Your task to perform on an android device: find which apps use the phone's location Image 0: 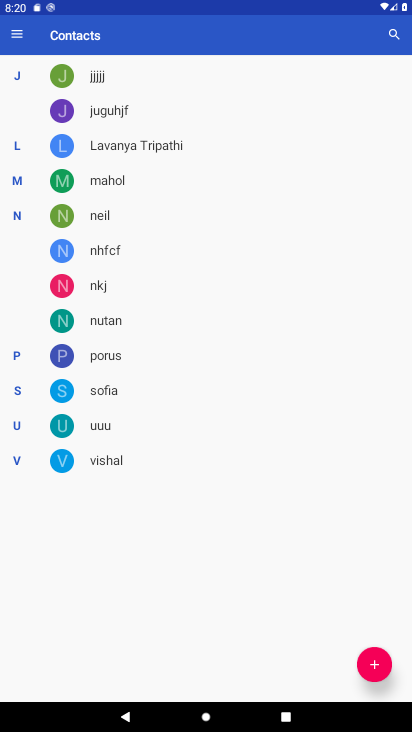
Step 0: press home button
Your task to perform on an android device: find which apps use the phone's location Image 1: 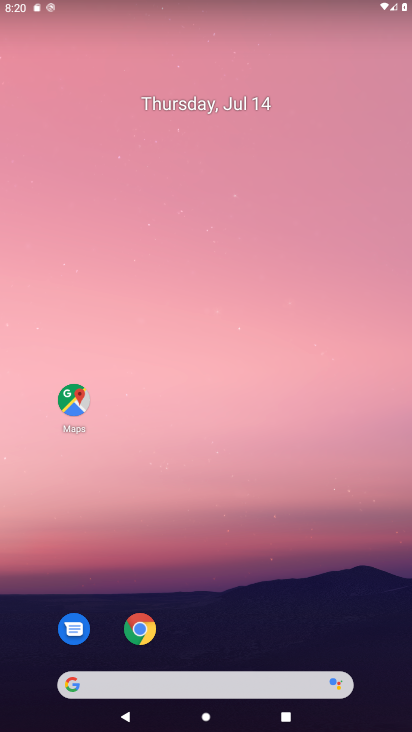
Step 1: drag from (201, 505) to (177, 0)
Your task to perform on an android device: find which apps use the phone's location Image 2: 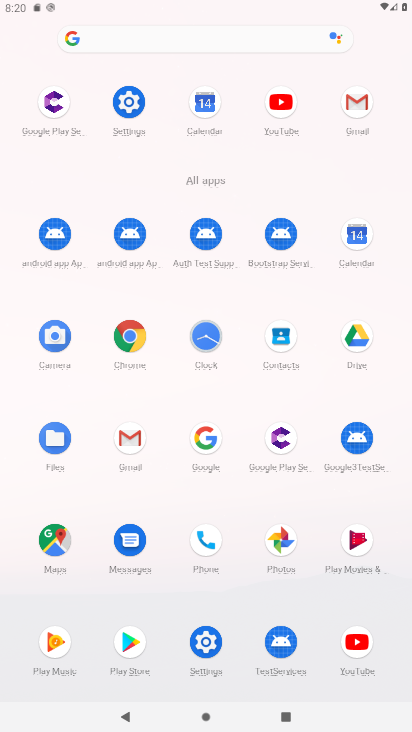
Step 2: drag from (217, 571) to (225, 408)
Your task to perform on an android device: find which apps use the phone's location Image 3: 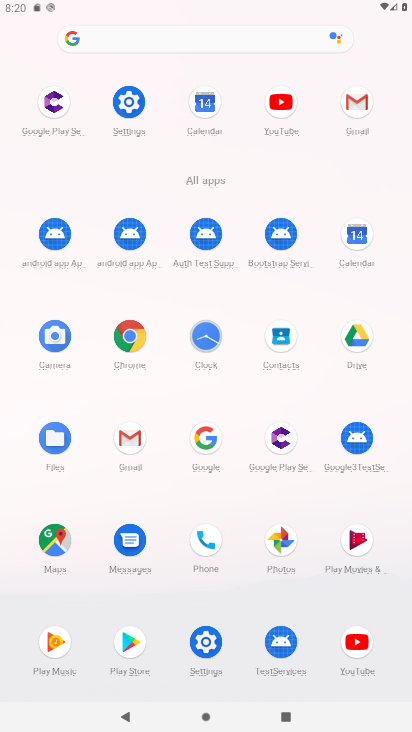
Step 3: click (202, 649)
Your task to perform on an android device: find which apps use the phone's location Image 4: 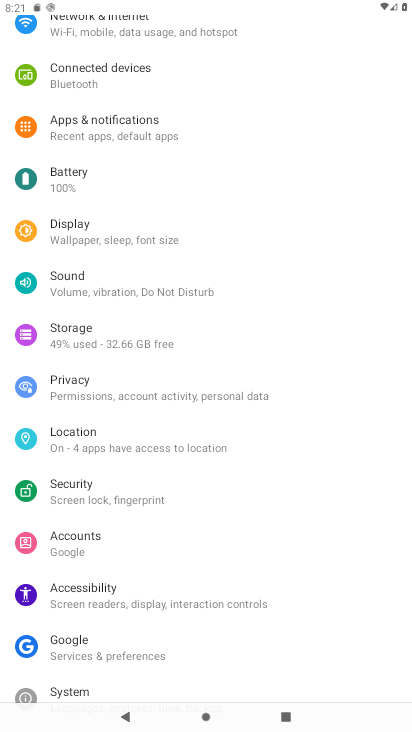
Step 4: click (122, 451)
Your task to perform on an android device: find which apps use the phone's location Image 5: 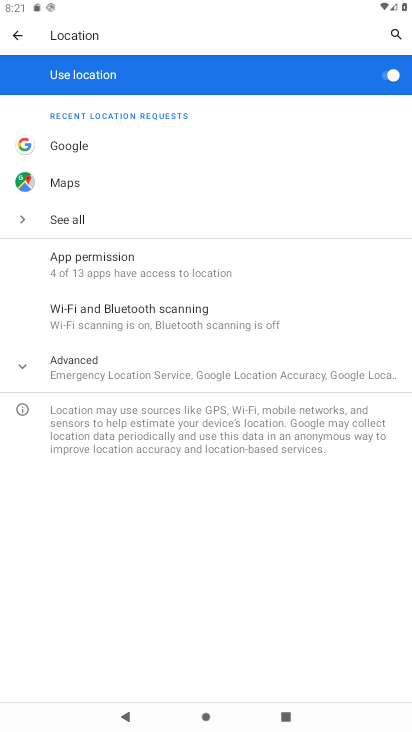
Step 5: click (100, 261)
Your task to perform on an android device: find which apps use the phone's location Image 6: 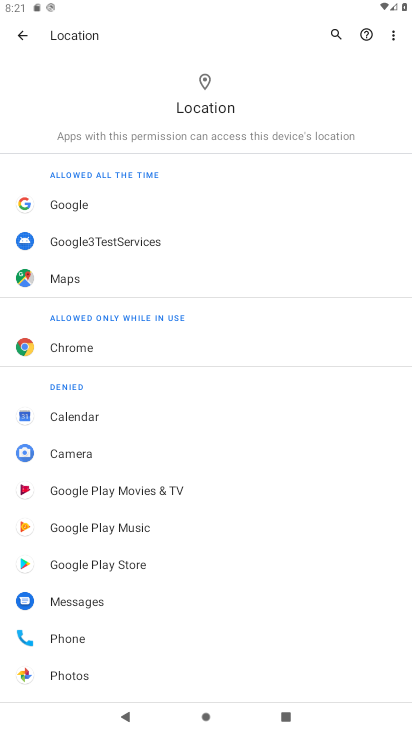
Step 6: task complete